Your task to perform on an android device: Open the map Image 0: 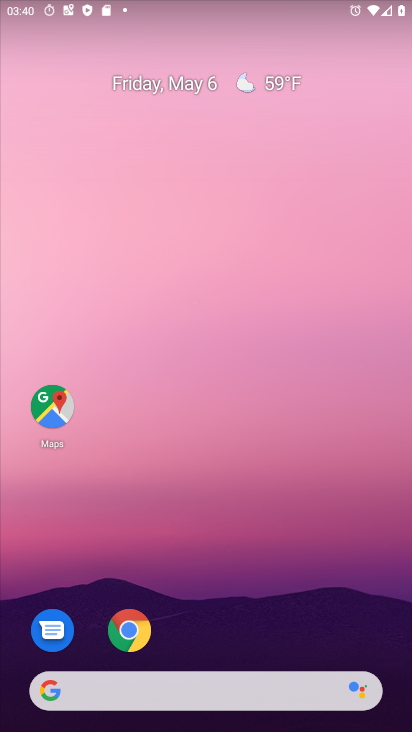
Step 0: click (46, 398)
Your task to perform on an android device: Open the map Image 1: 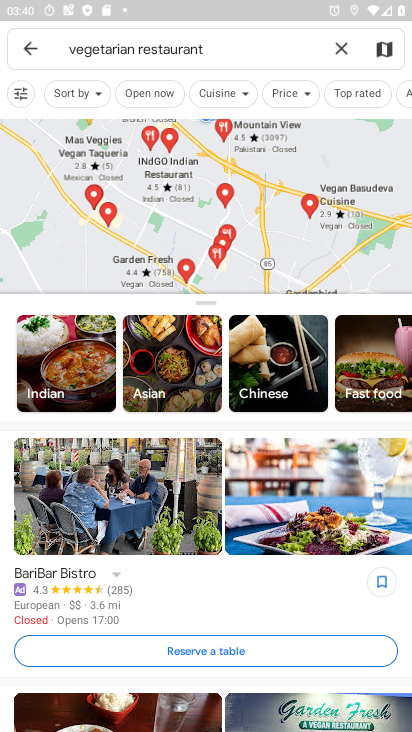
Step 1: task complete